Your task to perform on an android device: Go to location settings Image 0: 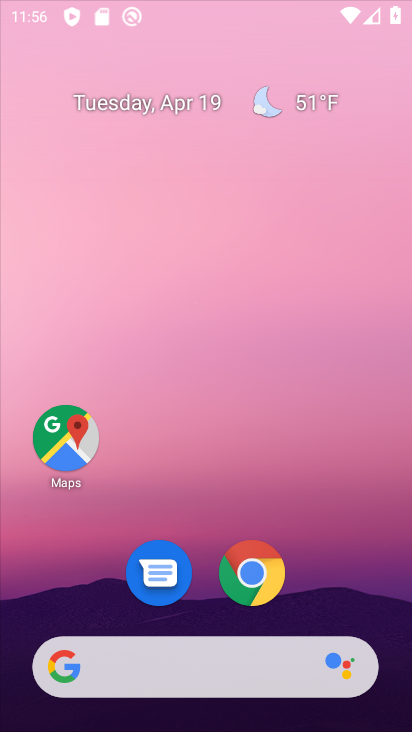
Step 0: click (343, 216)
Your task to perform on an android device: Go to location settings Image 1: 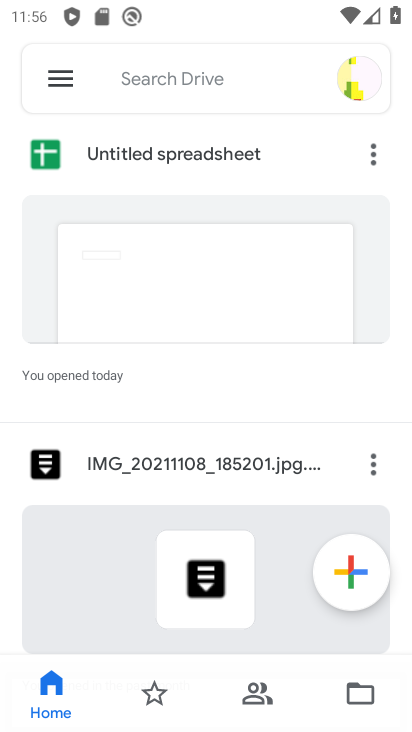
Step 1: press home button
Your task to perform on an android device: Go to location settings Image 2: 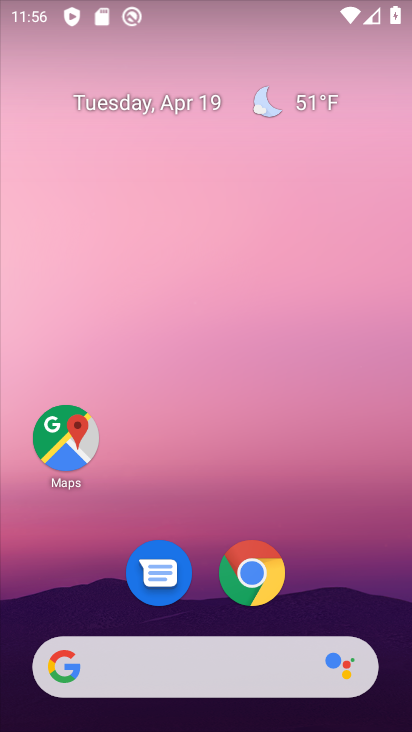
Step 2: drag from (330, 573) to (322, 179)
Your task to perform on an android device: Go to location settings Image 3: 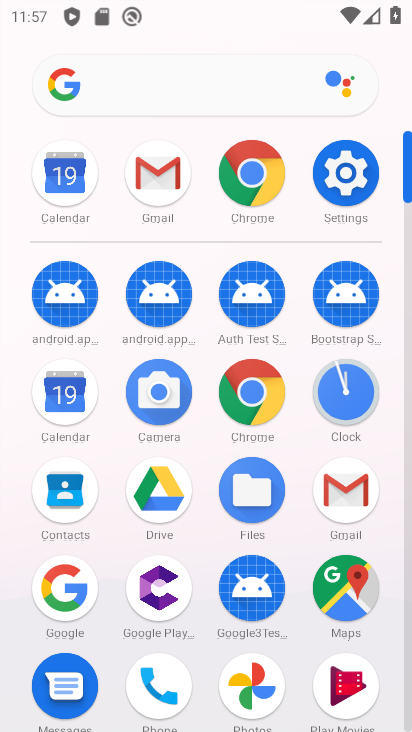
Step 3: drag from (304, 610) to (315, 447)
Your task to perform on an android device: Go to location settings Image 4: 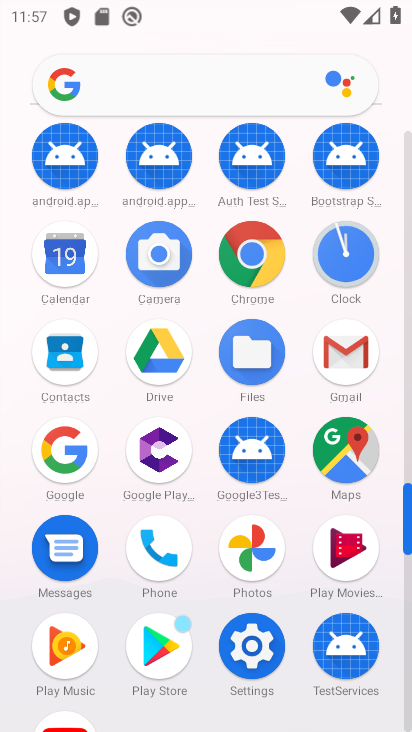
Step 4: click (251, 633)
Your task to perform on an android device: Go to location settings Image 5: 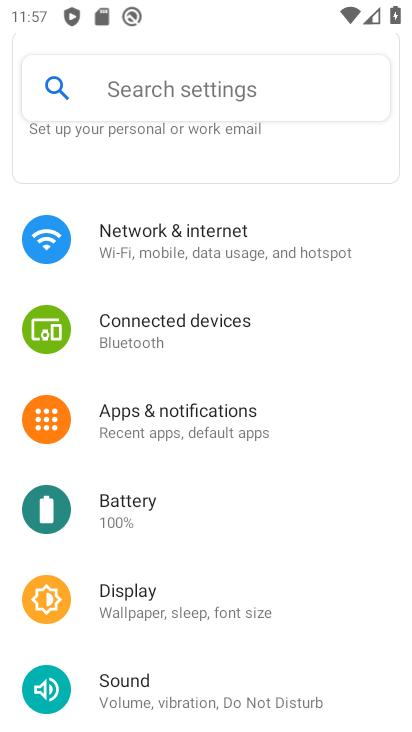
Step 5: drag from (299, 645) to (309, 342)
Your task to perform on an android device: Go to location settings Image 6: 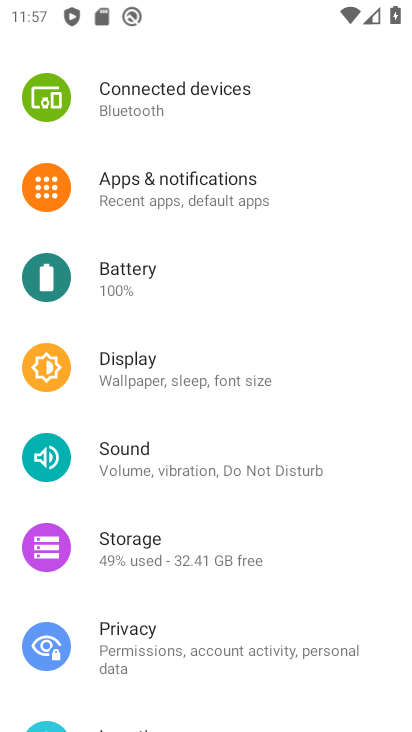
Step 6: drag from (257, 702) to (328, 333)
Your task to perform on an android device: Go to location settings Image 7: 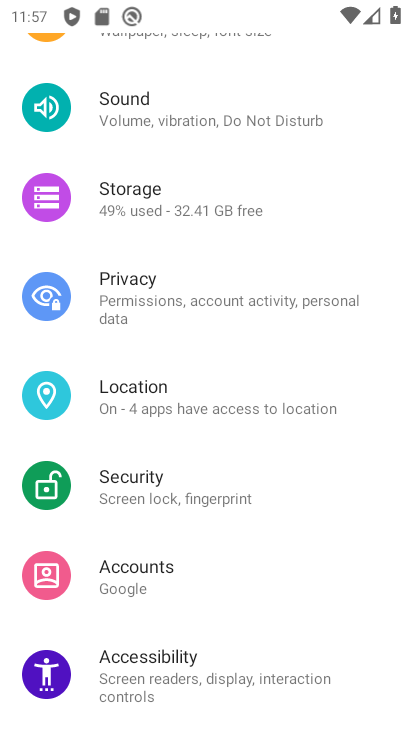
Step 7: click (177, 401)
Your task to perform on an android device: Go to location settings Image 8: 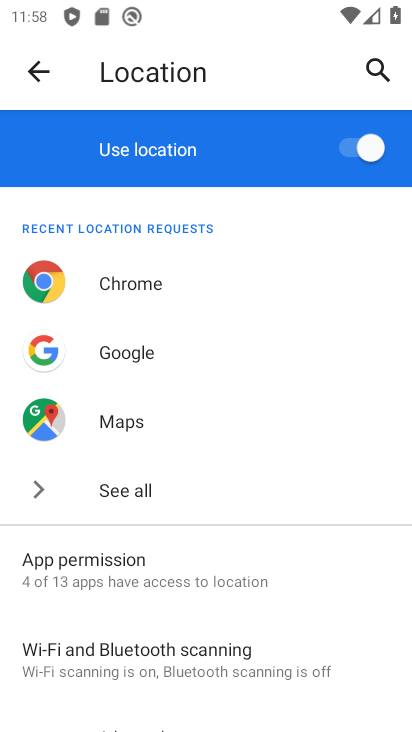
Step 8: task complete